Your task to perform on an android device: set default search engine in the chrome app Image 0: 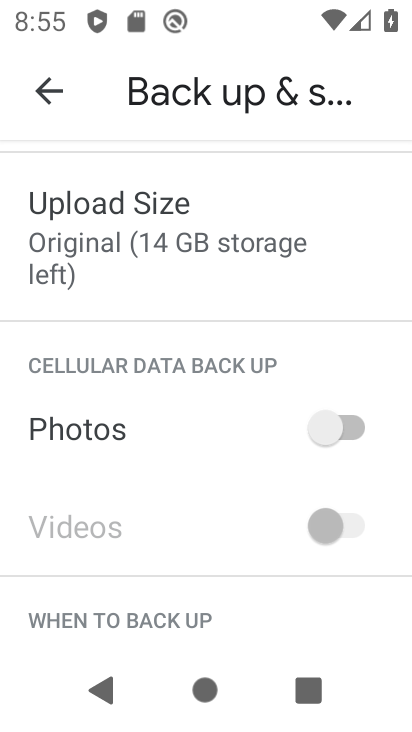
Step 0: press home button
Your task to perform on an android device: set default search engine in the chrome app Image 1: 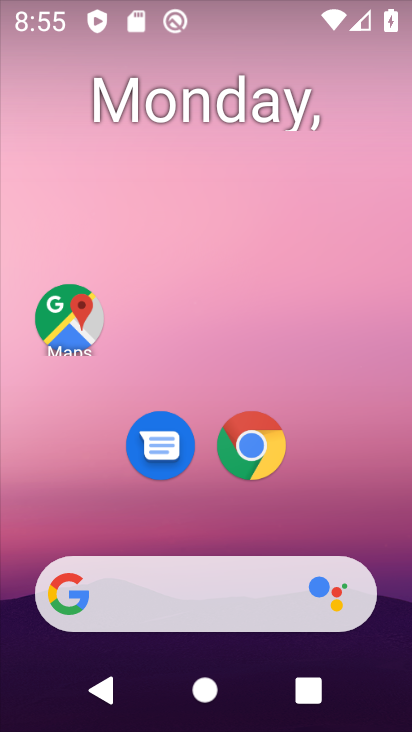
Step 1: drag from (358, 380) to (356, 79)
Your task to perform on an android device: set default search engine in the chrome app Image 2: 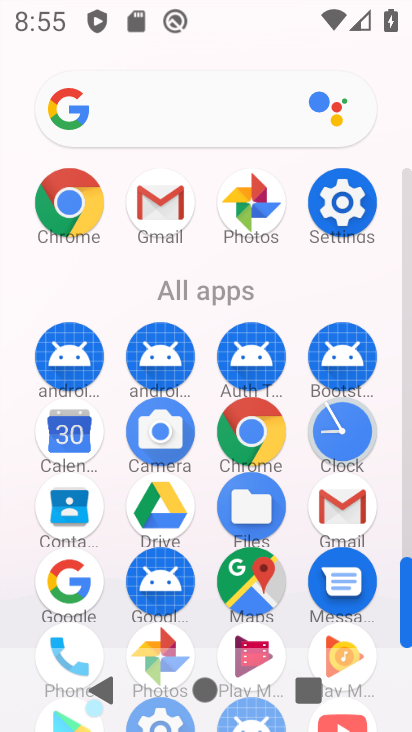
Step 2: click (271, 434)
Your task to perform on an android device: set default search engine in the chrome app Image 3: 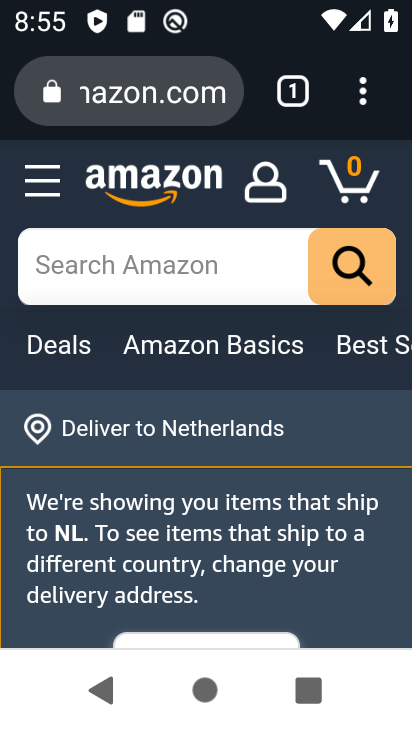
Step 3: click (366, 106)
Your task to perform on an android device: set default search engine in the chrome app Image 4: 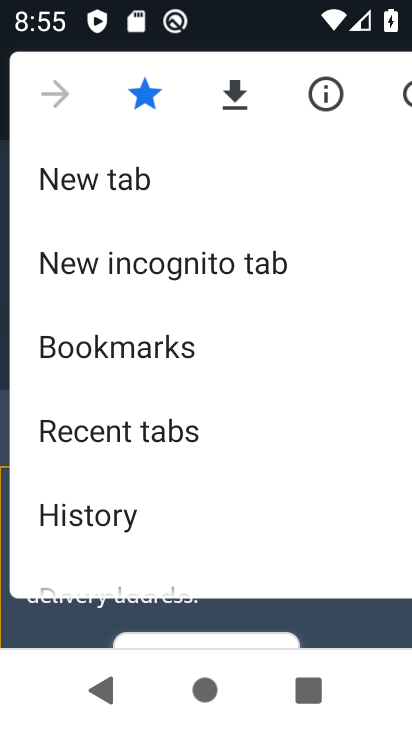
Step 4: drag from (345, 406) to (344, 345)
Your task to perform on an android device: set default search engine in the chrome app Image 5: 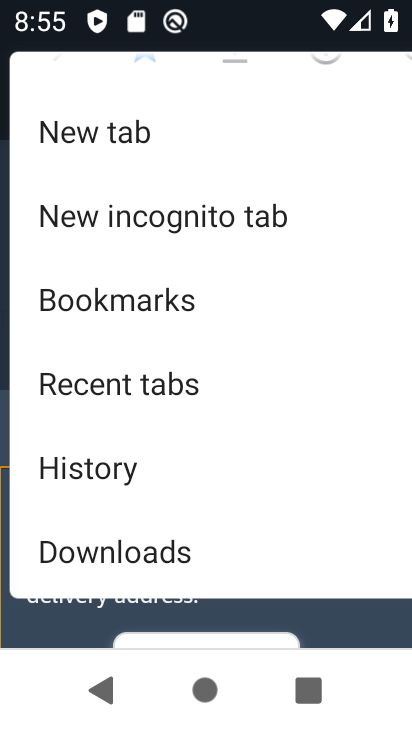
Step 5: drag from (336, 475) to (351, 381)
Your task to perform on an android device: set default search engine in the chrome app Image 6: 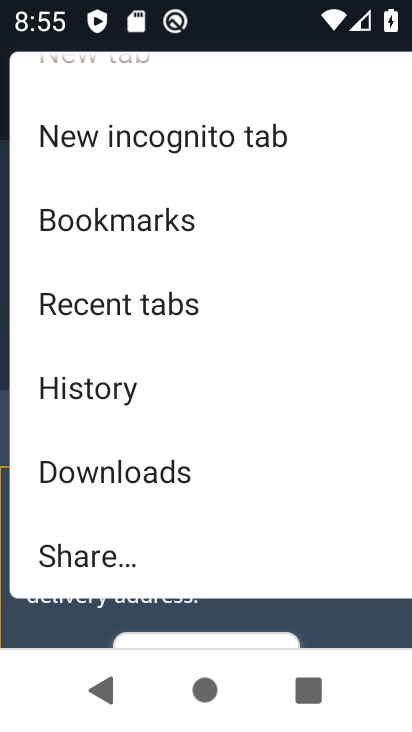
Step 6: drag from (339, 496) to (344, 420)
Your task to perform on an android device: set default search engine in the chrome app Image 7: 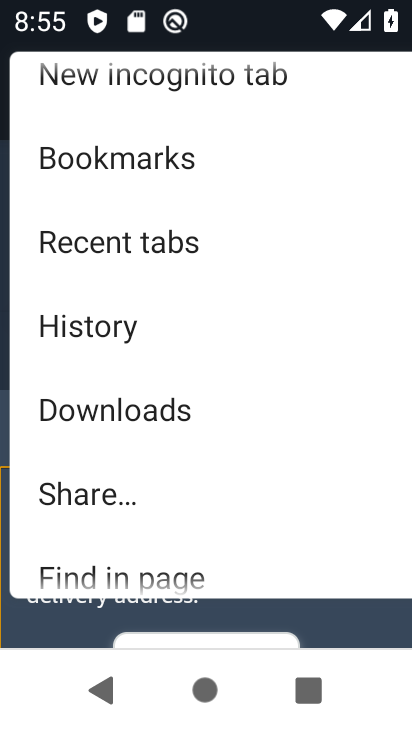
Step 7: drag from (344, 482) to (335, 347)
Your task to perform on an android device: set default search engine in the chrome app Image 8: 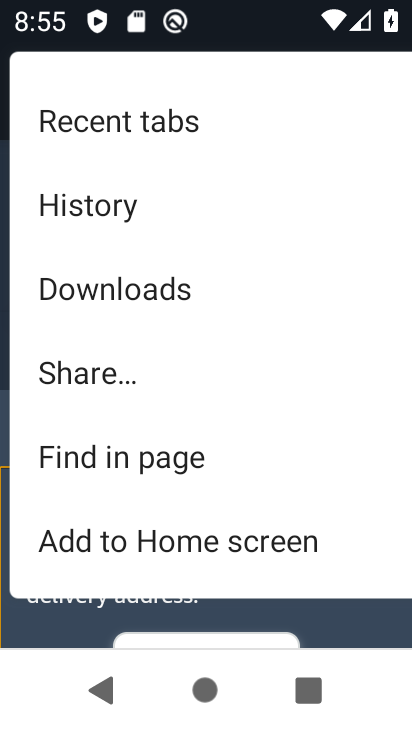
Step 8: drag from (336, 498) to (332, 385)
Your task to perform on an android device: set default search engine in the chrome app Image 9: 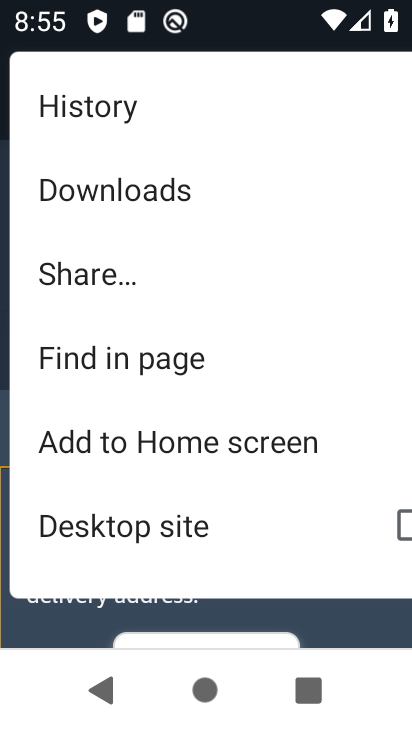
Step 9: drag from (343, 473) to (346, 394)
Your task to perform on an android device: set default search engine in the chrome app Image 10: 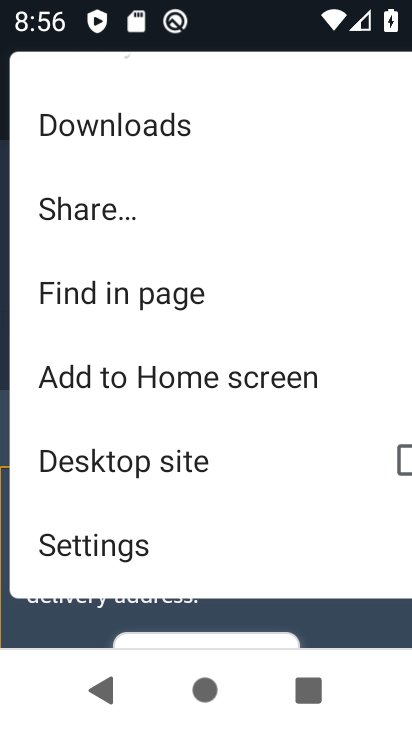
Step 10: drag from (321, 477) to (322, 413)
Your task to perform on an android device: set default search engine in the chrome app Image 11: 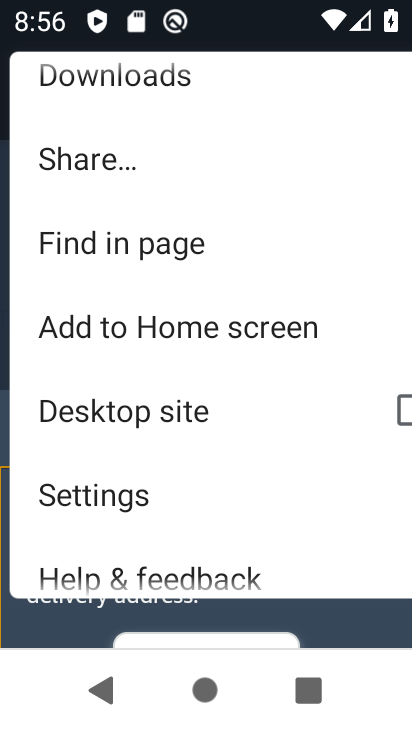
Step 11: click (173, 508)
Your task to perform on an android device: set default search engine in the chrome app Image 12: 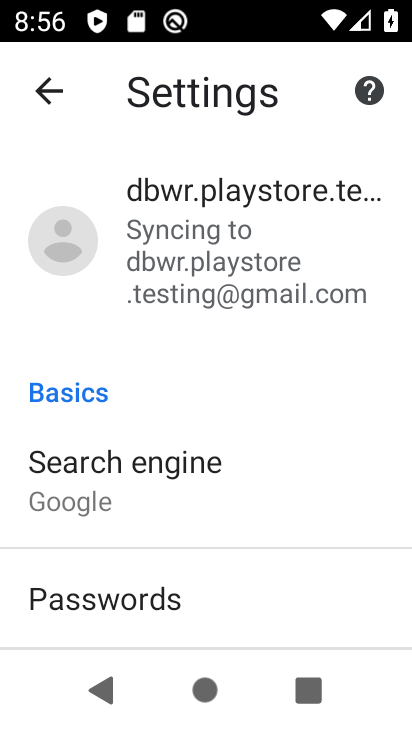
Step 12: click (185, 489)
Your task to perform on an android device: set default search engine in the chrome app Image 13: 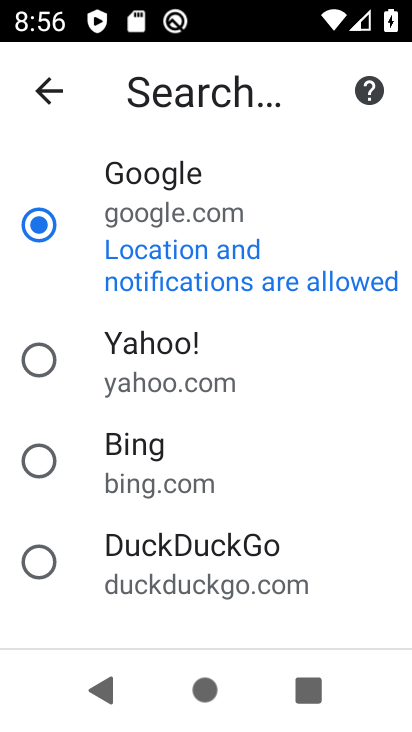
Step 13: click (125, 454)
Your task to perform on an android device: set default search engine in the chrome app Image 14: 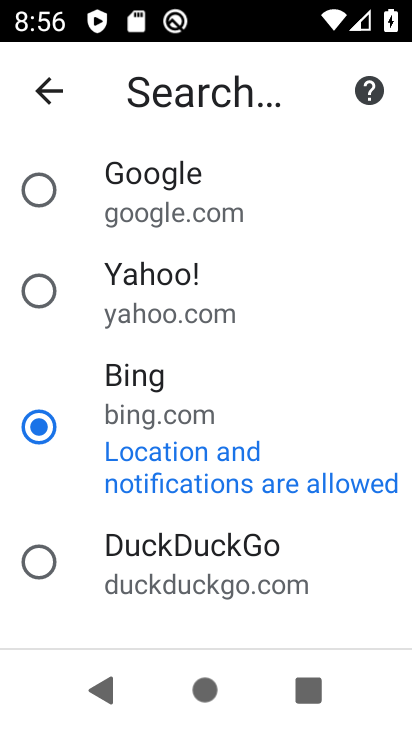
Step 14: task complete